Your task to perform on an android device: open wifi settings Image 0: 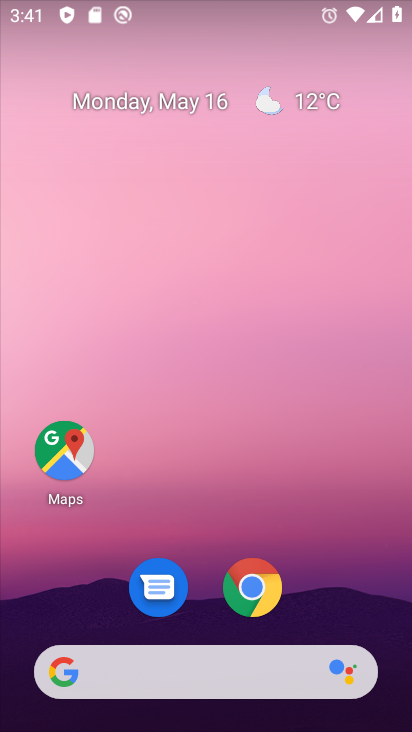
Step 0: drag from (388, 640) to (374, 307)
Your task to perform on an android device: open wifi settings Image 1: 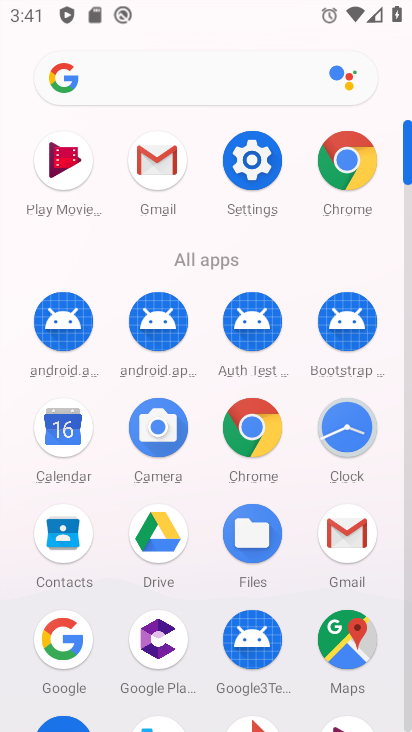
Step 1: click (235, 161)
Your task to perform on an android device: open wifi settings Image 2: 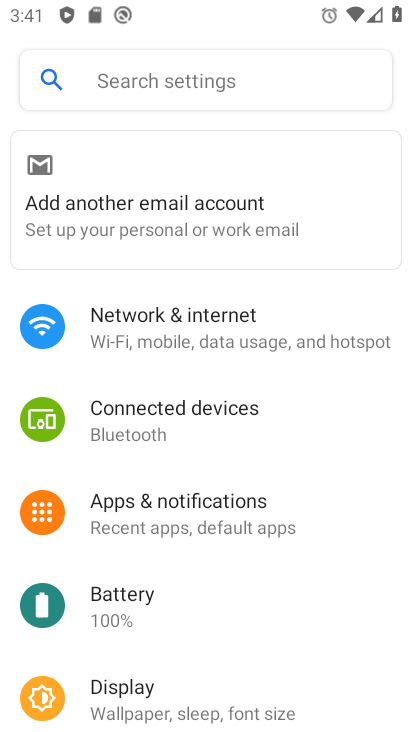
Step 2: drag from (283, 561) to (280, 423)
Your task to perform on an android device: open wifi settings Image 3: 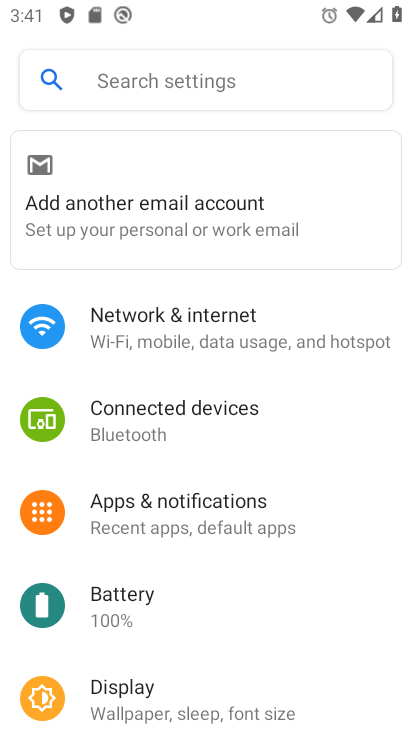
Step 3: drag from (276, 660) to (261, 393)
Your task to perform on an android device: open wifi settings Image 4: 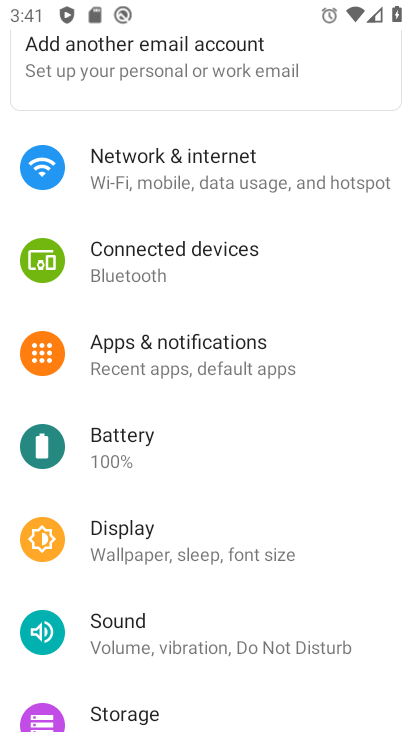
Step 4: drag from (308, 303) to (250, 532)
Your task to perform on an android device: open wifi settings Image 5: 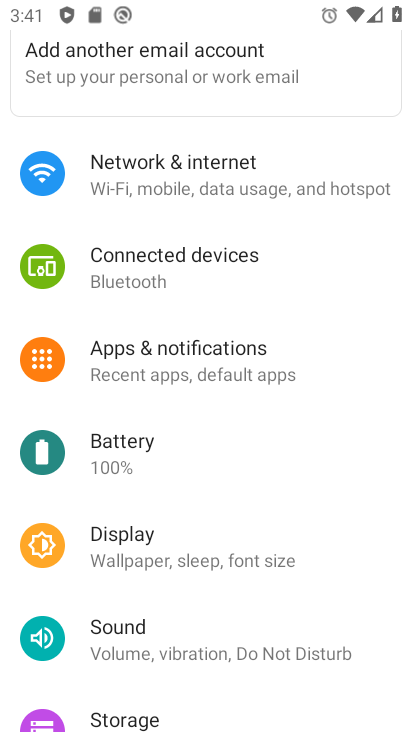
Step 5: click (199, 182)
Your task to perform on an android device: open wifi settings Image 6: 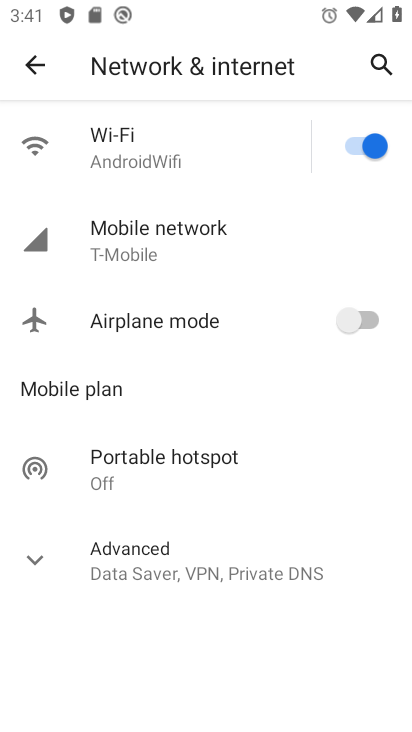
Step 6: click (184, 147)
Your task to perform on an android device: open wifi settings Image 7: 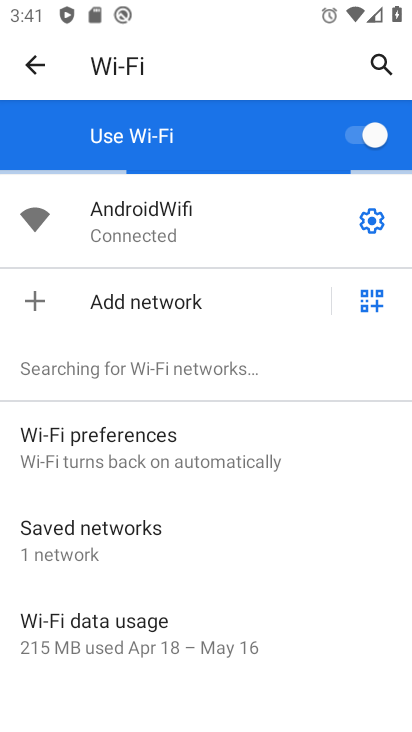
Step 7: click (365, 217)
Your task to perform on an android device: open wifi settings Image 8: 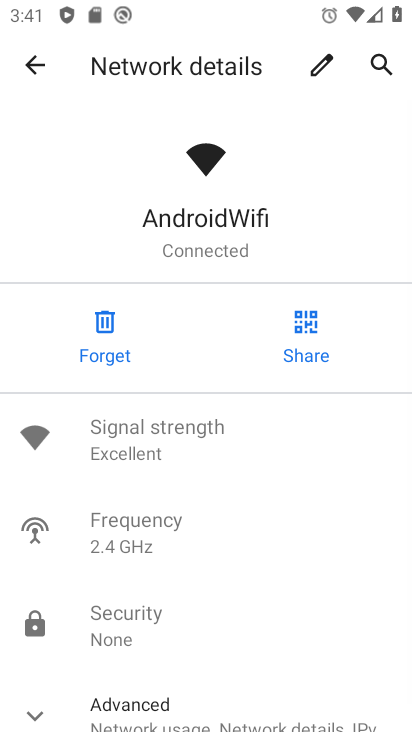
Step 8: task complete